Your task to perform on an android device: turn off smart reply in the gmail app Image 0: 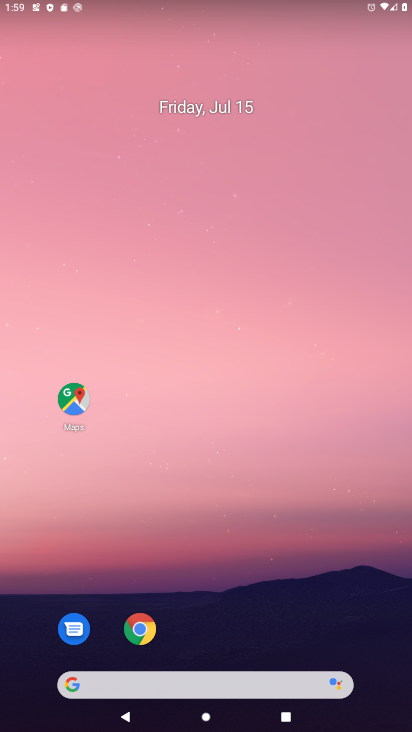
Step 0: drag from (315, 632) to (274, 45)
Your task to perform on an android device: turn off smart reply in the gmail app Image 1: 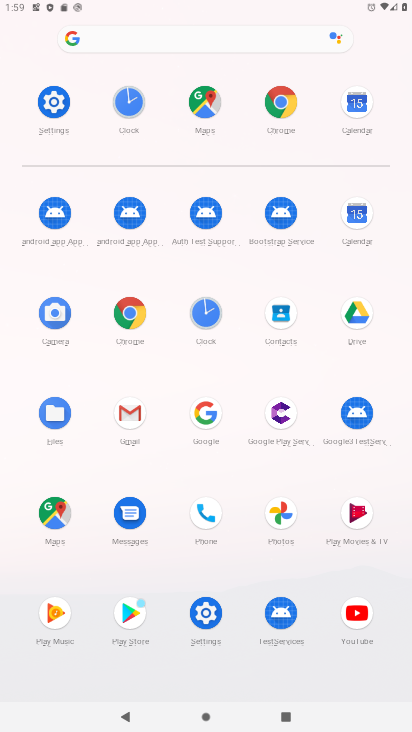
Step 1: click (132, 412)
Your task to perform on an android device: turn off smart reply in the gmail app Image 2: 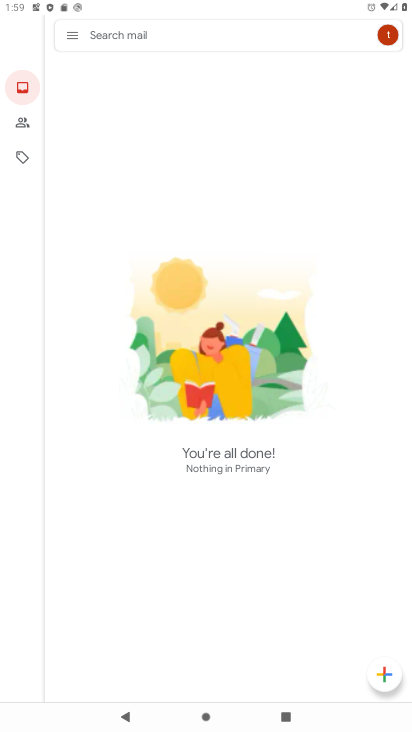
Step 2: click (68, 37)
Your task to perform on an android device: turn off smart reply in the gmail app Image 3: 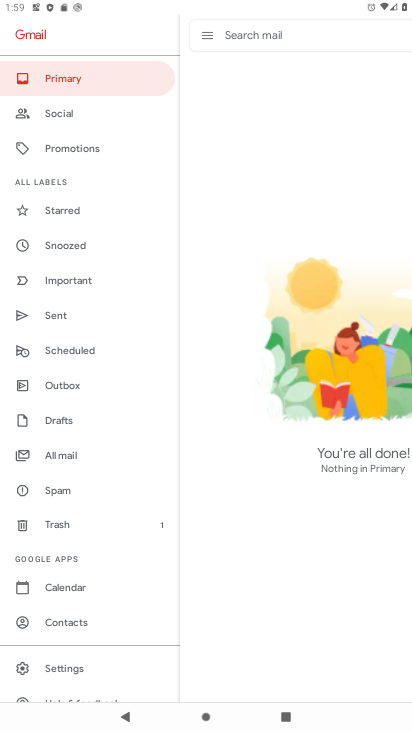
Step 3: click (81, 662)
Your task to perform on an android device: turn off smart reply in the gmail app Image 4: 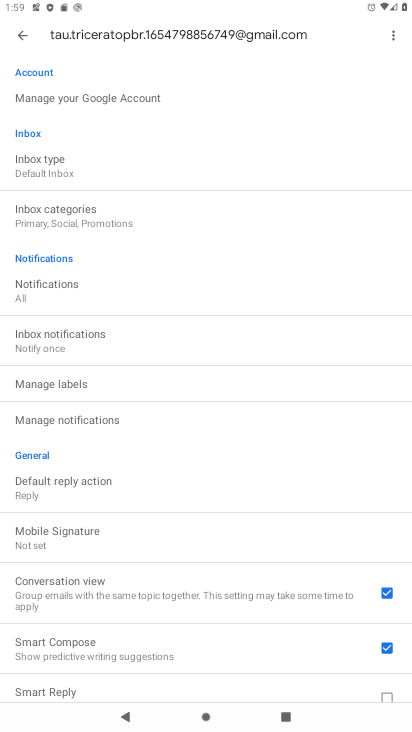
Step 4: task complete